Your task to perform on an android device: toggle sleep mode Image 0: 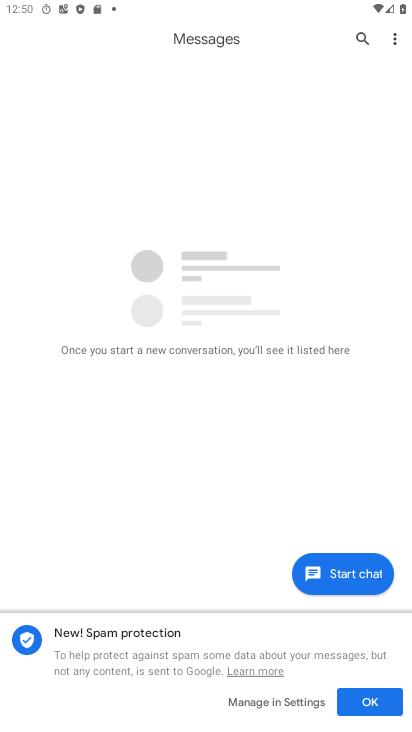
Step 0: click (285, 144)
Your task to perform on an android device: toggle sleep mode Image 1: 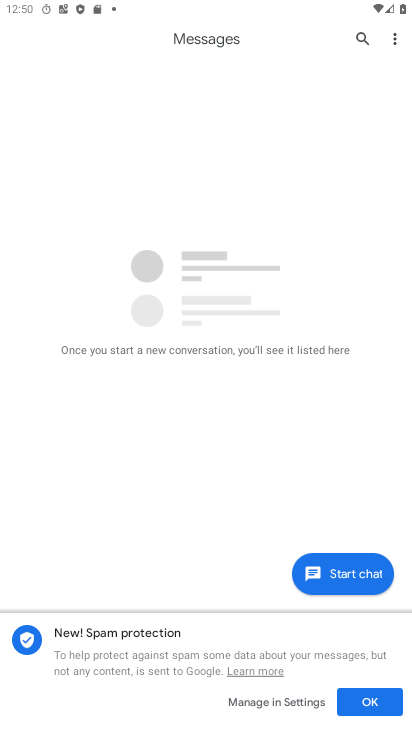
Step 1: press home button
Your task to perform on an android device: toggle sleep mode Image 2: 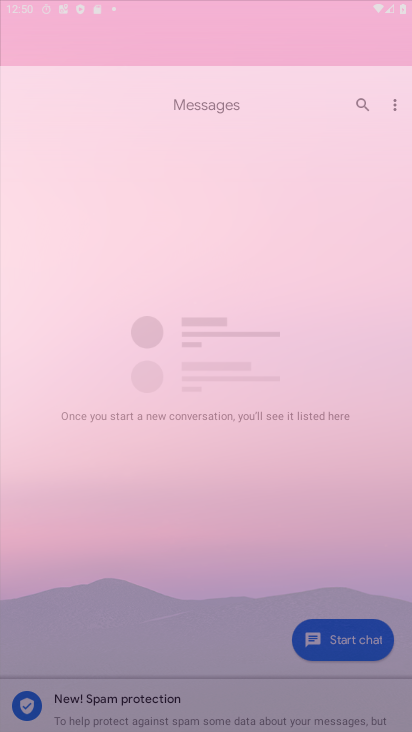
Step 2: drag from (250, 510) to (288, 172)
Your task to perform on an android device: toggle sleep mode Image 3: 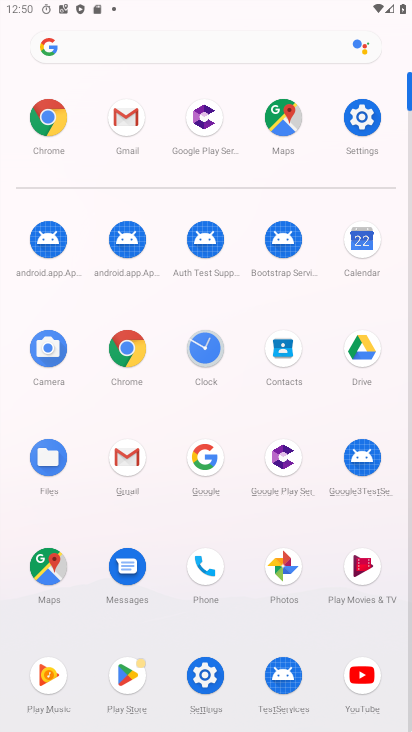
Step 3: click (352, 102)
Your task to perform on an android device: toggle sleep mode Image 4: 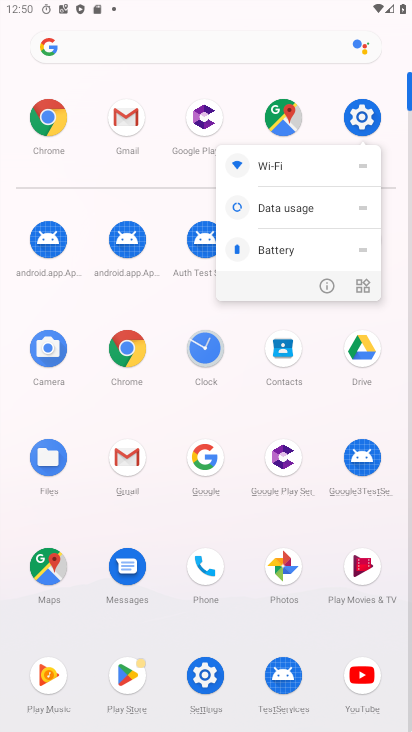
Step 4: click (325, 282)
Your task to perform on an android device: toggle sleep mode Image 5: 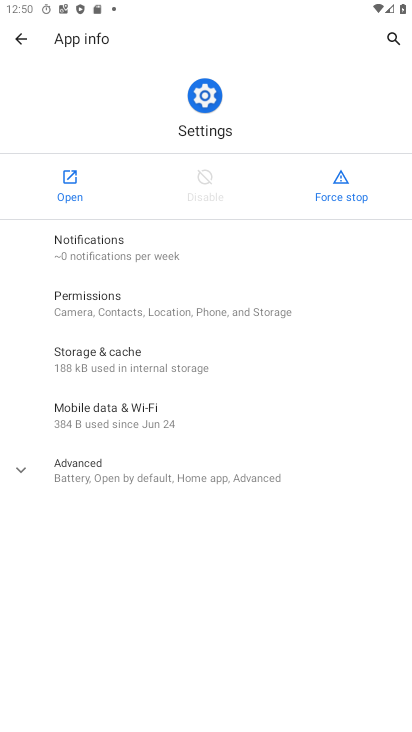
Step 5: click (74, 186)
Your task to perform on an android device: toggle sleep mode Image 6: 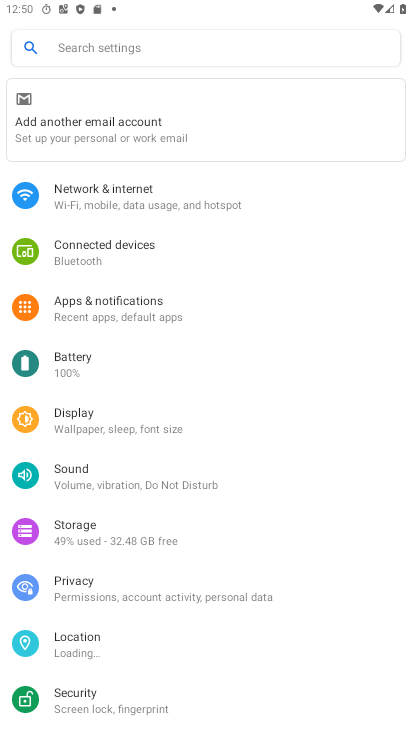
Step 6: click (90, 423)
Your task to perform on an android device: toggle sleep mode Image 7: 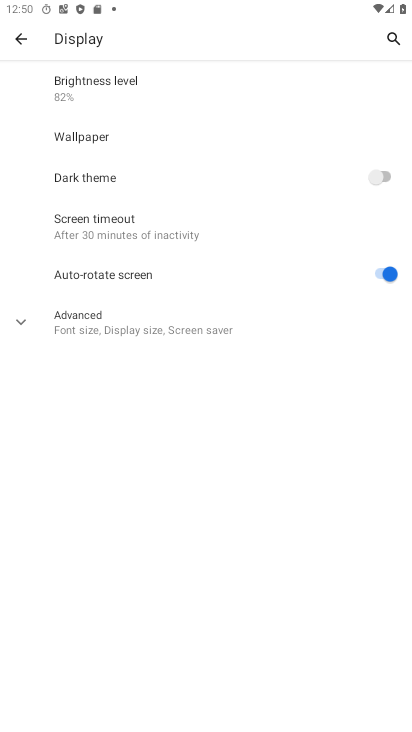
Step 7: click (128, 207)
Your task to perform on an android device: toggle sleep mode Image 8: 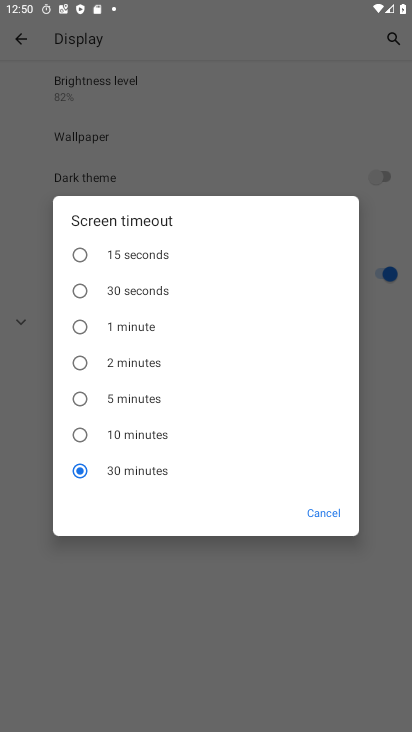
Step 8: task complete